Your task to perform on an android device: clear all cookies in the chrome app Image 0: 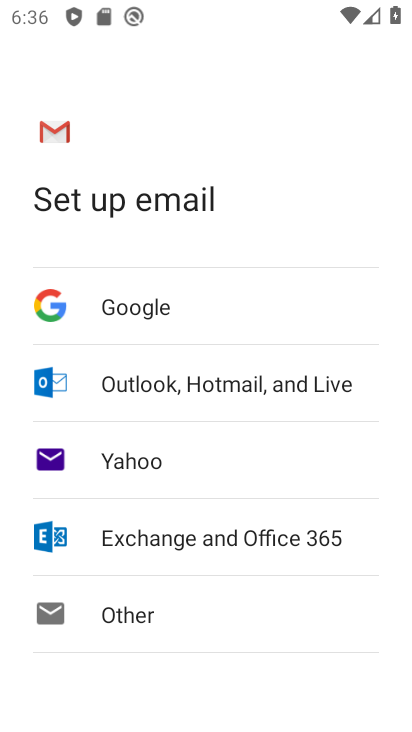
Step 0: press home button
Your task to perform on an android device: clear all cookies in the chrome app Image 1: 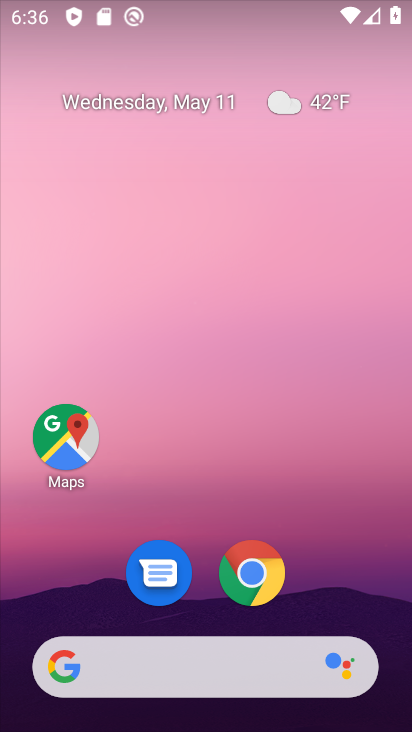
Step 1: click (65, 441)
Your task to perform on an android device: clear all cookies in the chrome app Image 2: 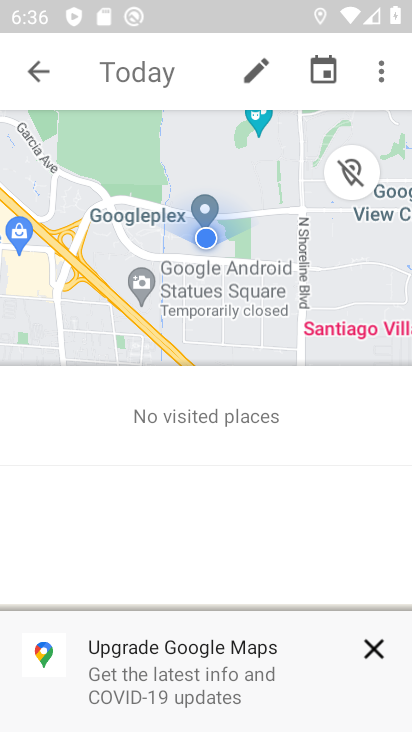
Step 2: task complete